Your task to perform on an android device: Go to notification settings Image 0: 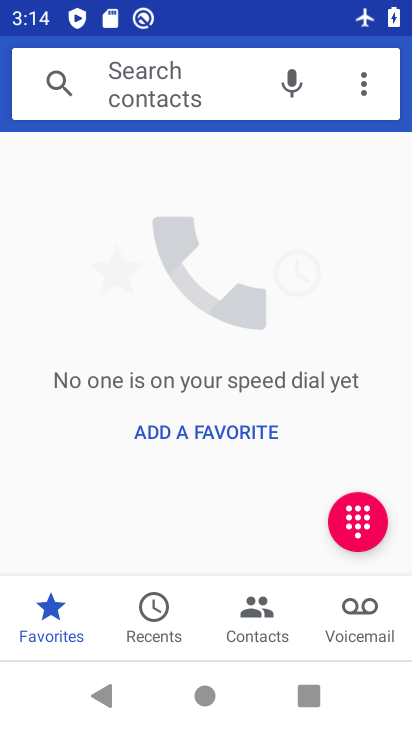
Step 0: press back button
Your task to perform on an android device: Go to notification settings Image 1: 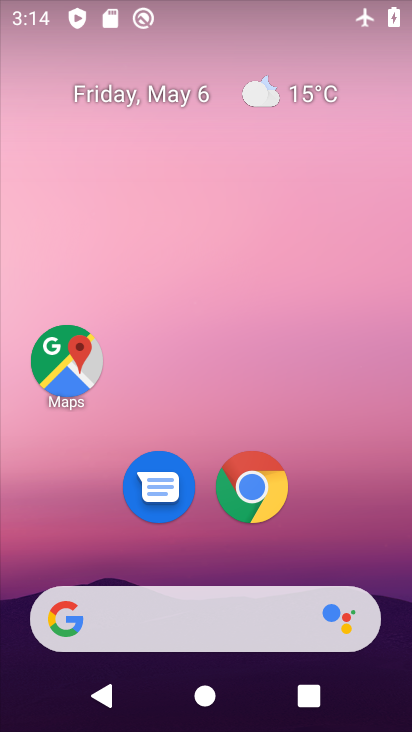
Step 1: drag from (100, 608) to (205, 39)
Your task to perform on an android device: Go to notification settings Image 2: 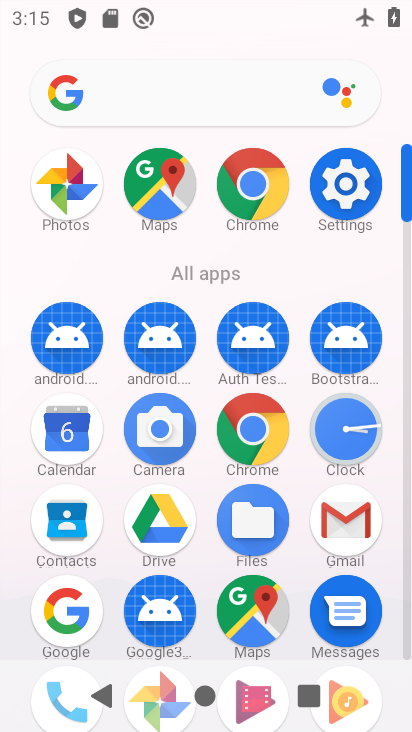
Step 2: drag from (189, 643) to (261, 301)
Your task to perform on an android device: Go to notification settings Image 3: 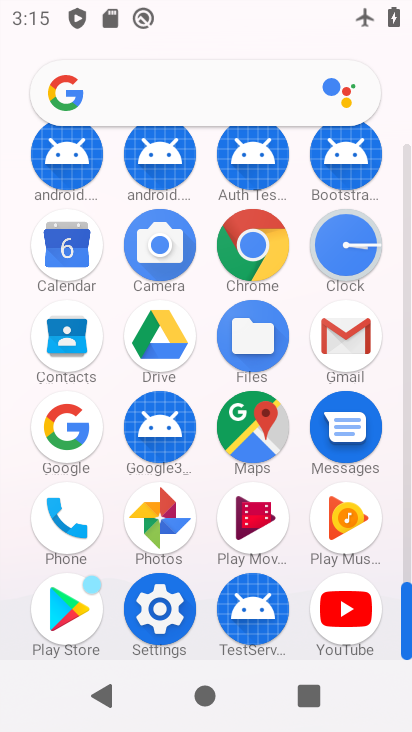
Step 3: click (155, 627)
Your task to perform on an android device: Go to notification settings Image 4: 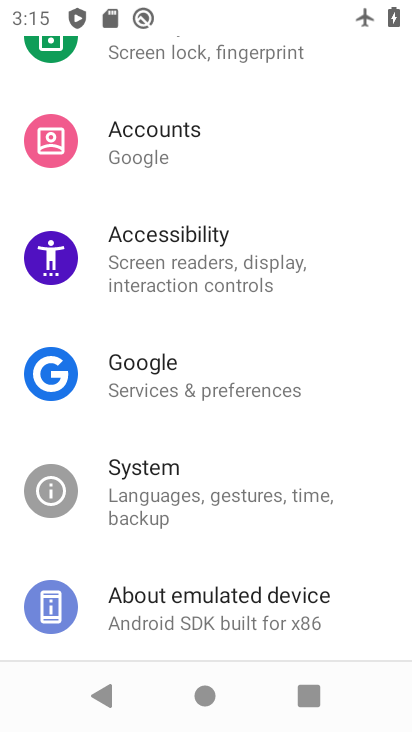
Step 4: drag from (243, 272) to (215, 577)
Your task to perform on an android device: Go to notification settings Image 5: 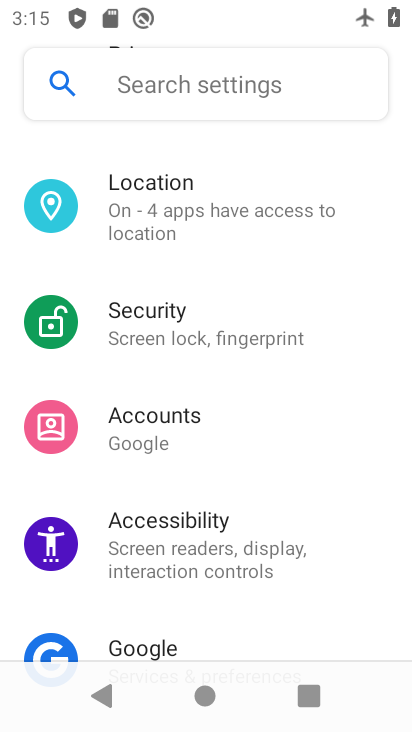
Step 5: drag from (205, 332) to (185, 638)
Your task to perform on an android device: Go to notification settings Image 6: 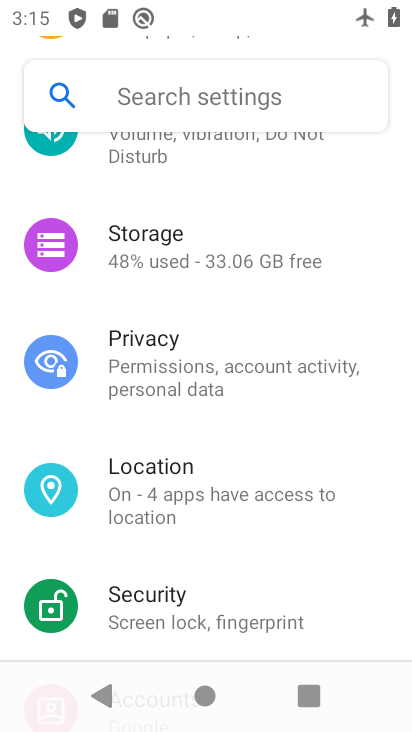
Step 6: drag from (180, 316) to (180, 583)
Your task to perform on an android device: Go to notification settings Image 7: 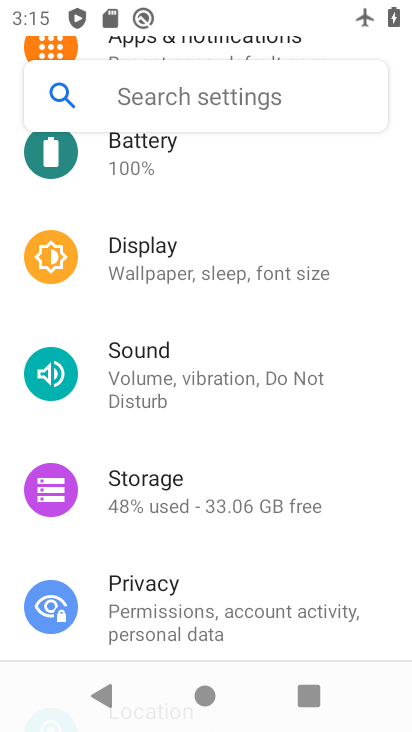
Step 7: drag from (223, 253) to (192, 529)
Your task to perform on an android device: Go to notification settings Image 8: 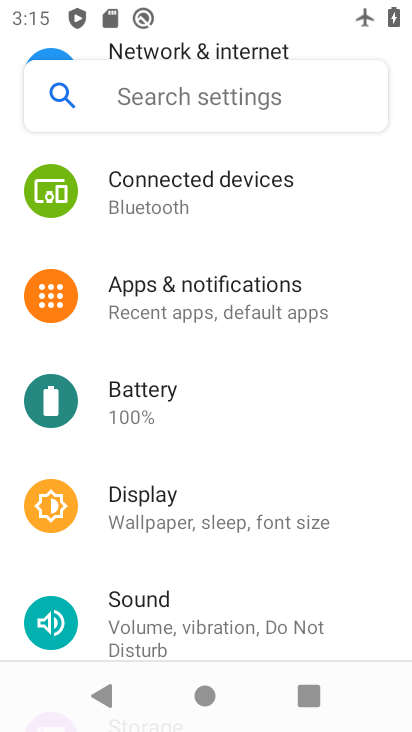
Step 8: click (210, 318)
Your task to perform on an android device: Go to notification settings Image 9: 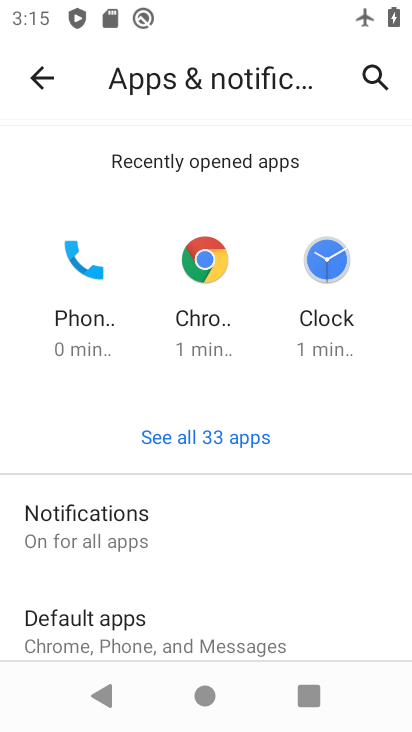
Step 9: drag from (164, 596) to (201, 442)
Your task to perform on an android device: Go to notification settings Image 10: 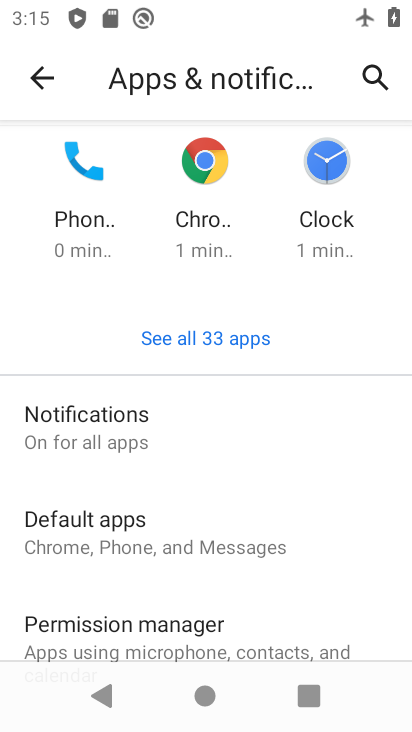
Step 10: click (184, 437)
Your task to perform on an android device: Go to notification settings Image 11: 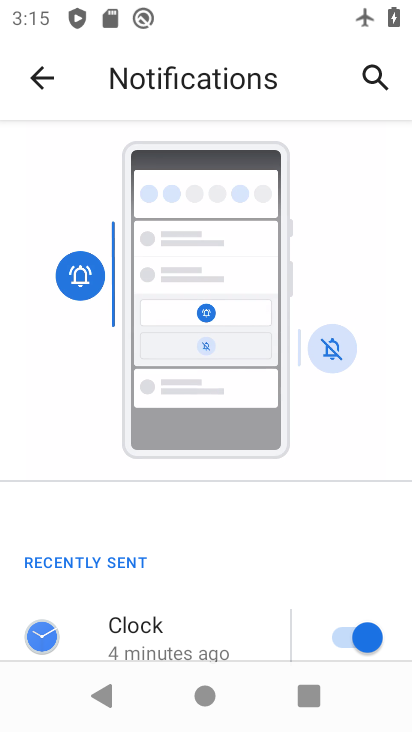
Step 11: task complete